Your task to perform on an android device: Go to Yahoo.com Image 0: 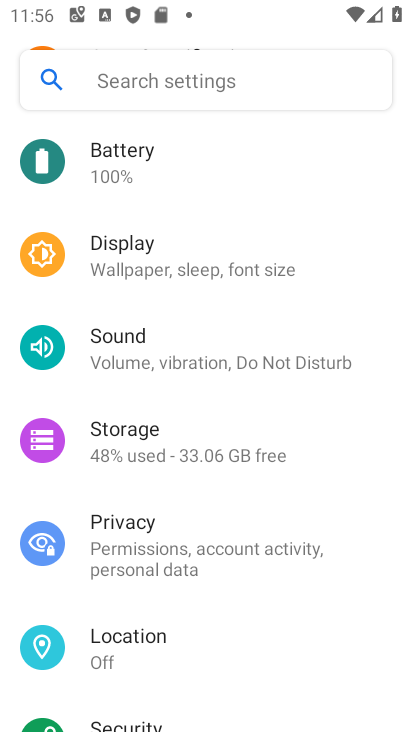
Step 0: press home button
Your task to perform on an android device: Go to Yahoo.com Image 1: 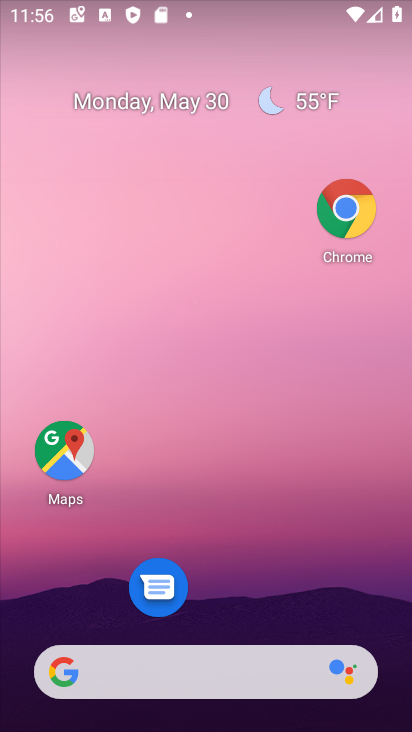
Step 1: click (351, 191)
Your task to perform on an android device: Go to Yahoo.com Image 2: 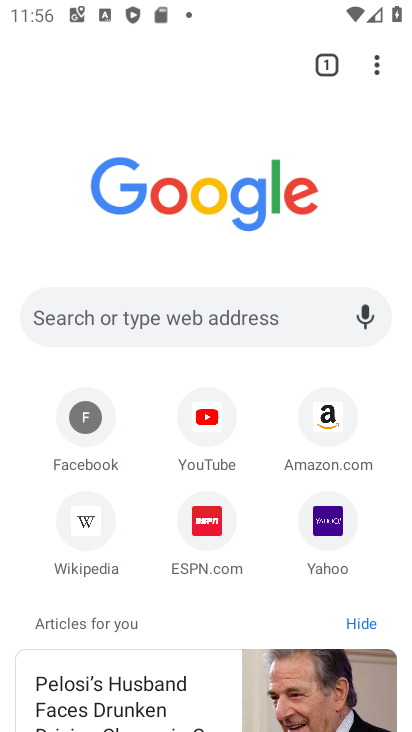
Step 2: click (331, 505)
Your task to perform on an android device: Go to Yahoo.com Image 3: 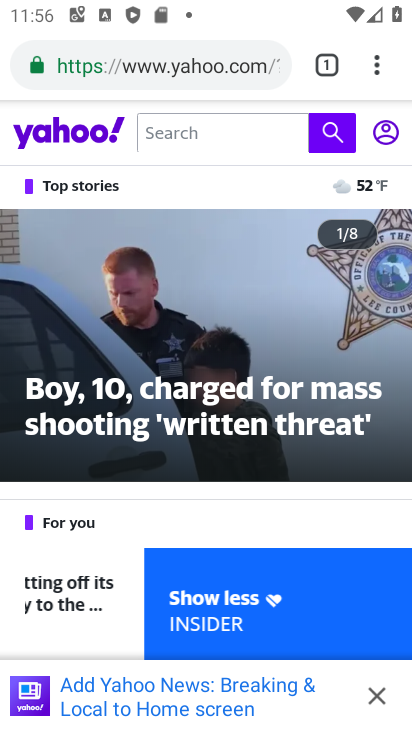
Step 3: task complete